Your task to perform on an android device: Go to Maps Image 0: 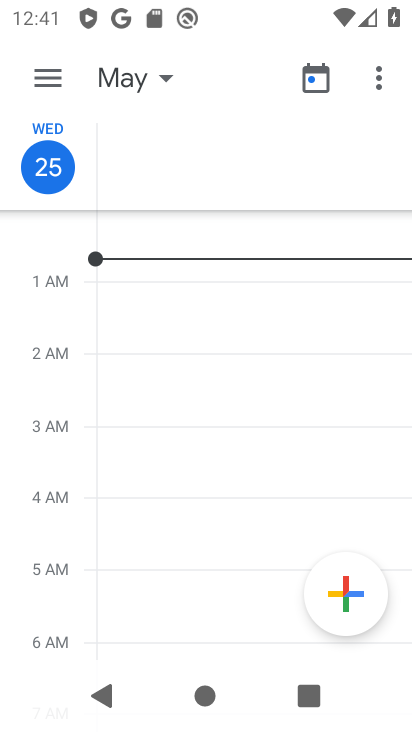
Step 0: press home button
Your task to perform on an android device: Go to Maps Image 1: 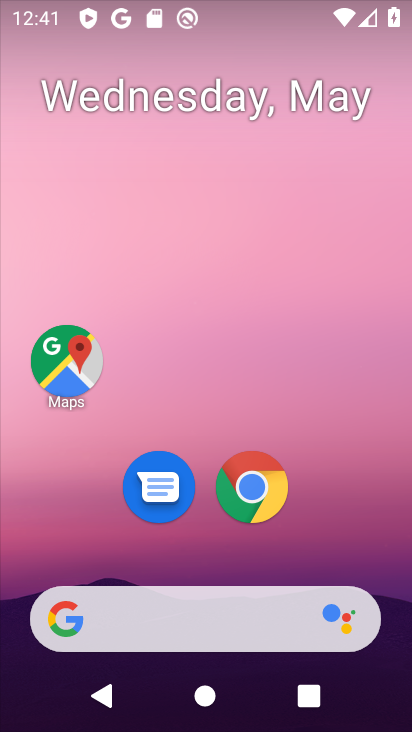
Step 1: click (83, 372)
Your task to perform on an android device: Go to Maps Image 2: 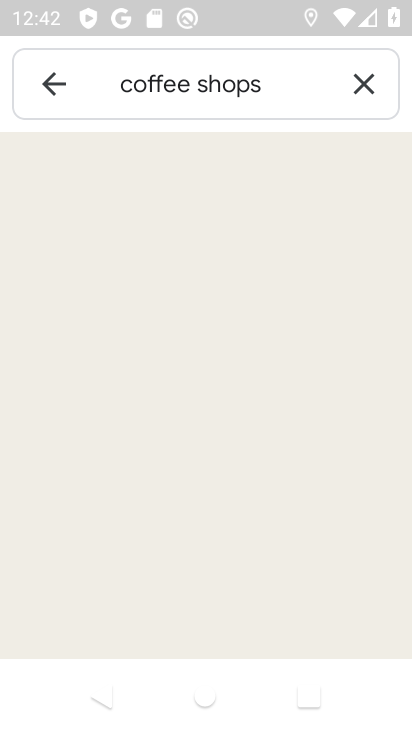
Step 2: click (65, 87)
Your task to perform on an android device: Go to Maps Image 3: 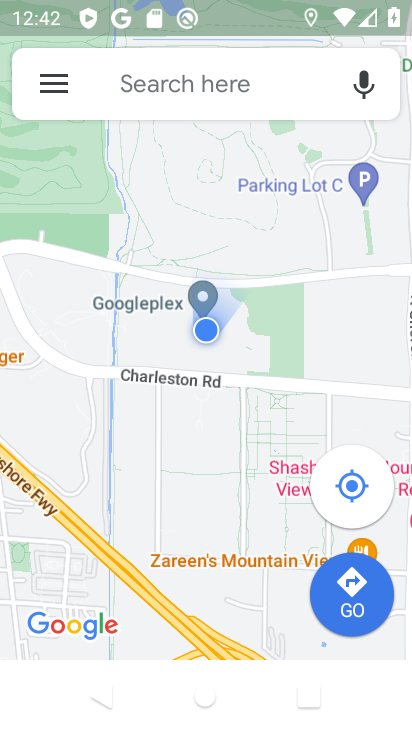
Step 3: task complete